Your task to perform on an android device: change notification settings in the gmail app Image 0: 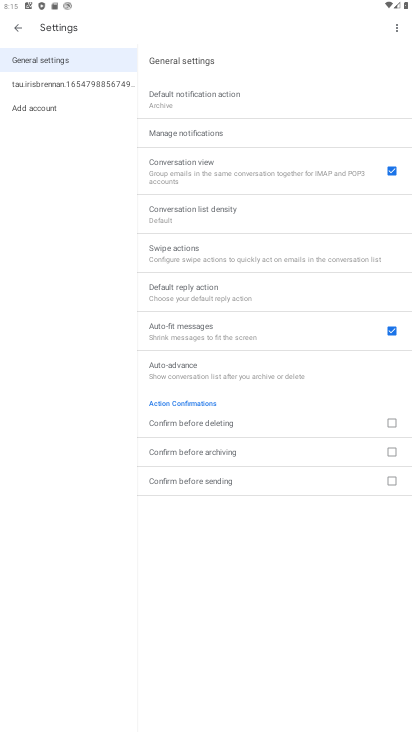
Step 0: drag from (195, 517) to (226, 181)
Your task to perform on an android device: change notification settings in the gmail app Image 1: 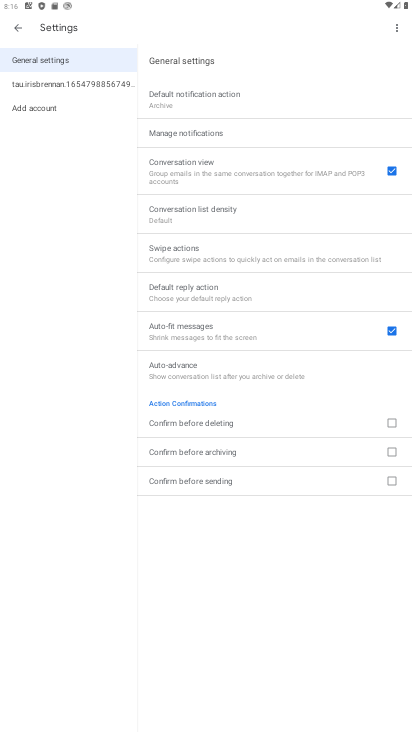
Step 1: click (66, 83)
Your task to perform on an android device: change notification settings in the gmail app Image 2: 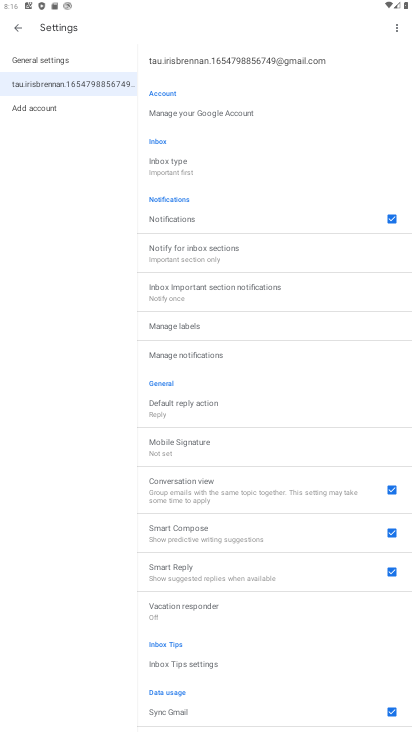
Step 2: click (215, 357)
Your task to perform on an android device: change notification settings in the gmail app Image 3: 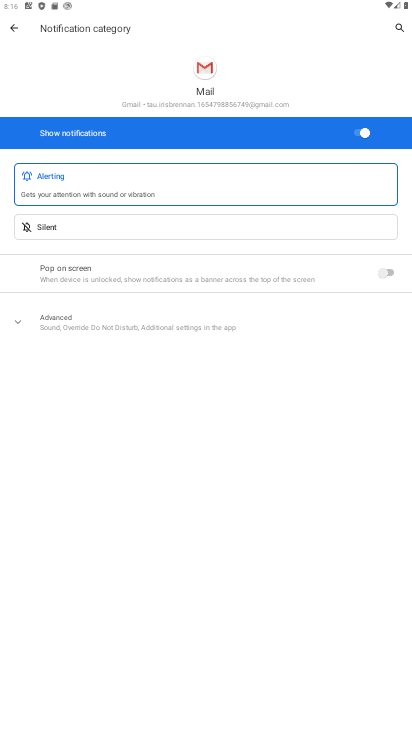
Step 3: click (357, 136)
Your task to perform on an android device: change notification settings in the gmail app Image 4: 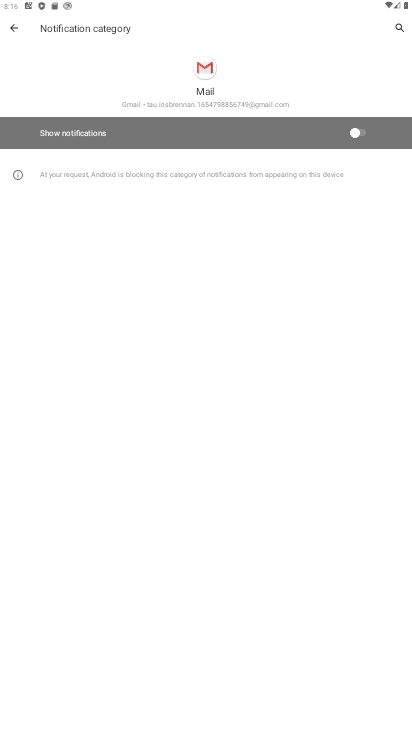
Step 4: task complete